Your task to perform on an android device: star an email in the gmail app Image 0: 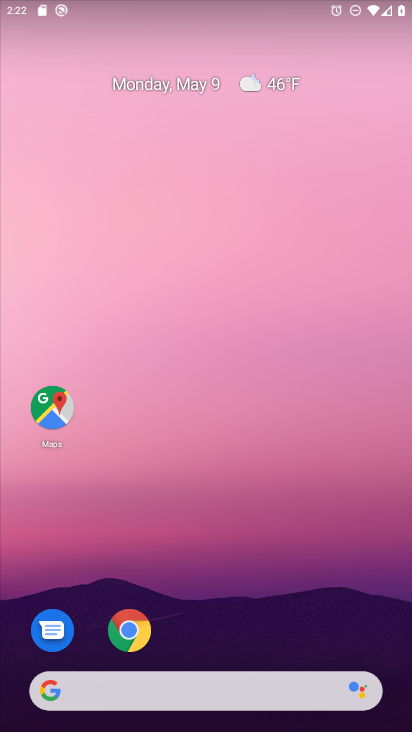
Step 0: drag from (332, 715) to (303, 293)
Your task to perform on an android device: star an email in the gmail app Image 1: 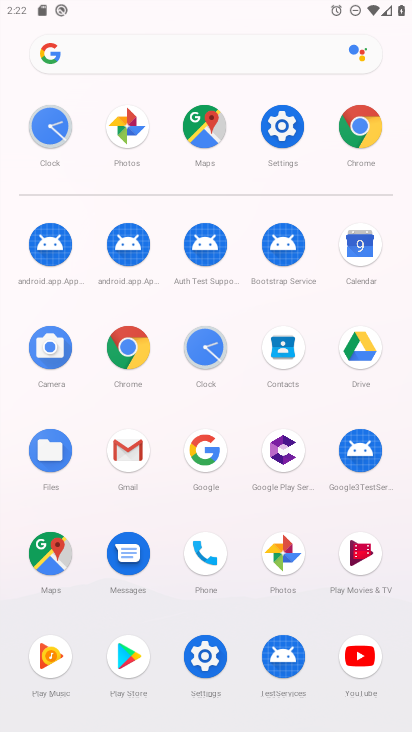
Step 1: click (133, 440)
Your task to perform on an android device: star an email in the gmail app Image 2: 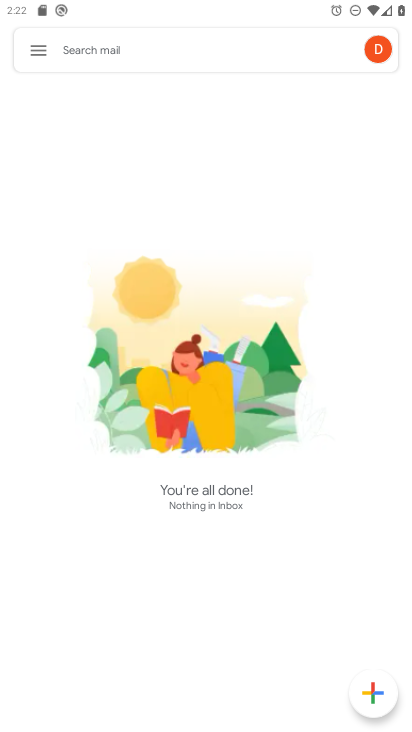
Step 2: click (38, 51)
Your task to perform on an android device: star an email in the gmail app Image 3: 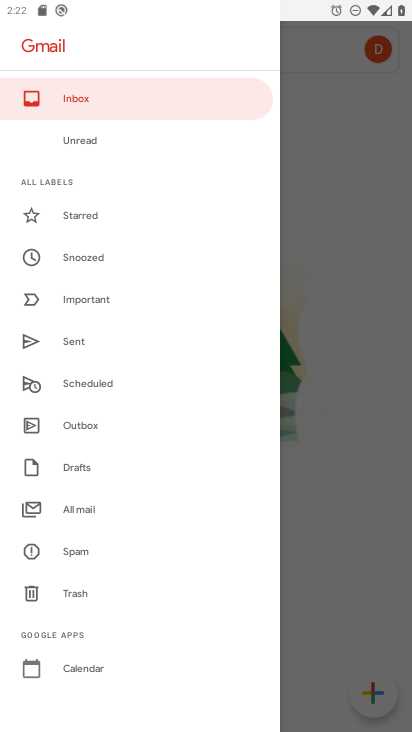
Step 3: click (96, 220)
Your task to perform on an android device: star an email in the gmail app Image 4: 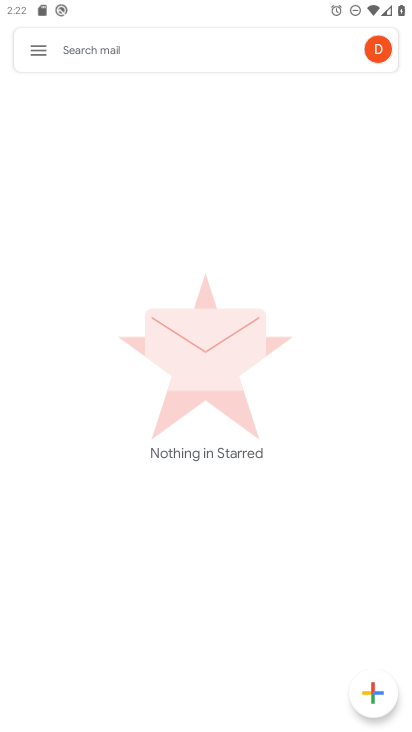
Step 4: task complete